Your task to perform on an android device: Open Google Chrome Image 0: 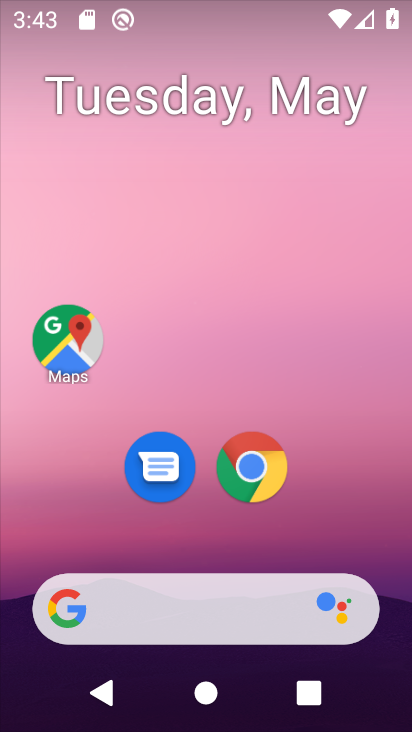
Step 0: drag from (271, 529) to (245, 92)
Your task to perform on an android device: Open Google Chrome Image 1: 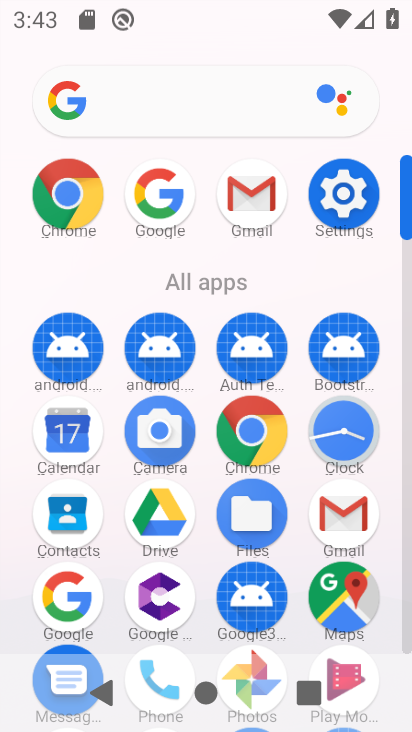
Step 1: click (243, 460)
Your task to perform on an android device: Open Google Chrome Image 2: 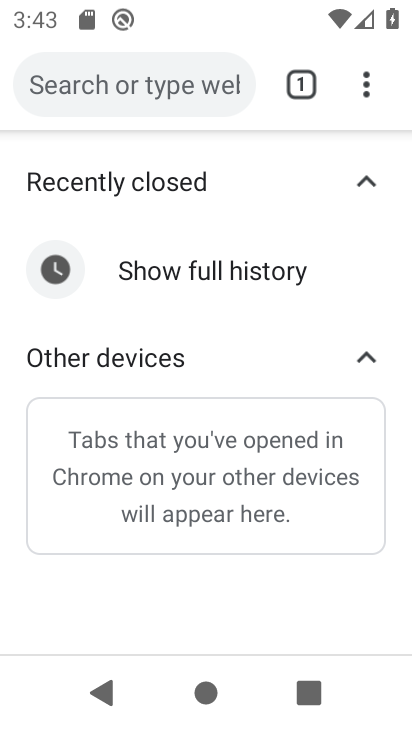
Step 2: press home button
Your task to perform on an android device: Open Google Chrome Image 3: 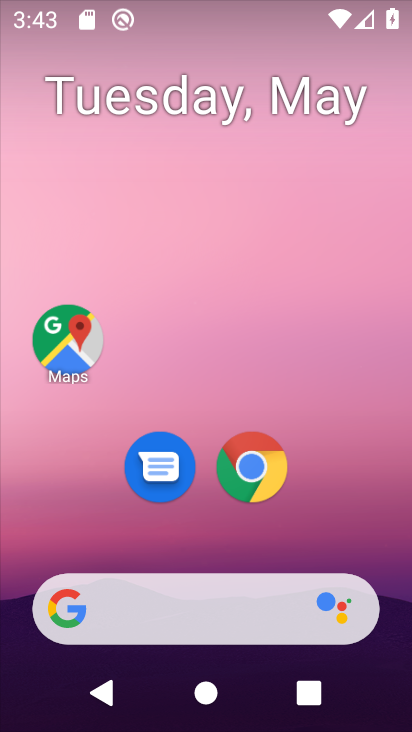
Step 3: click (237, 475)
Your task to perform on an android device: Open Google Chrome Image 4: 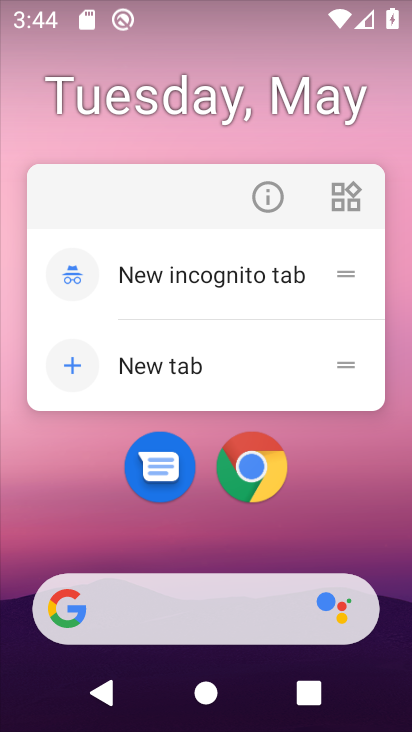
Step 4: click (246, 464)
Your task to perform on an android device: Open Google Chrome Image 5: 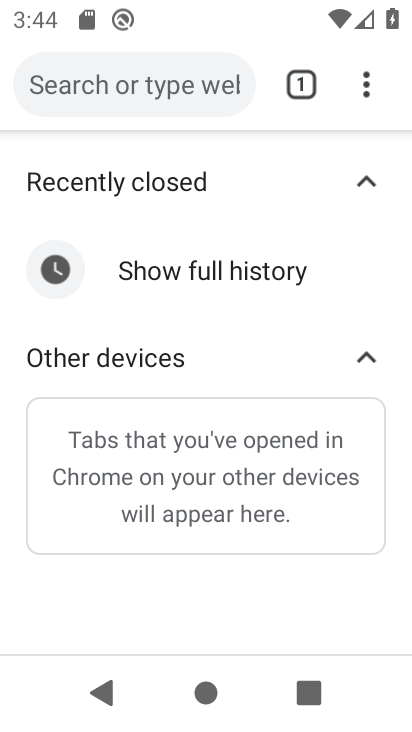
Step 5: task complete